Your task to perform on an android device: Open Reddit.com Image 0: 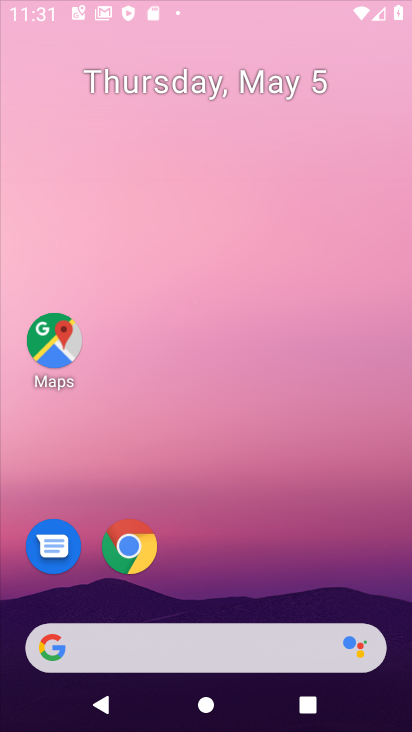
Step 0: click (284, 207)
Your task to perform on an android device: Open Reddit.com Image 1: 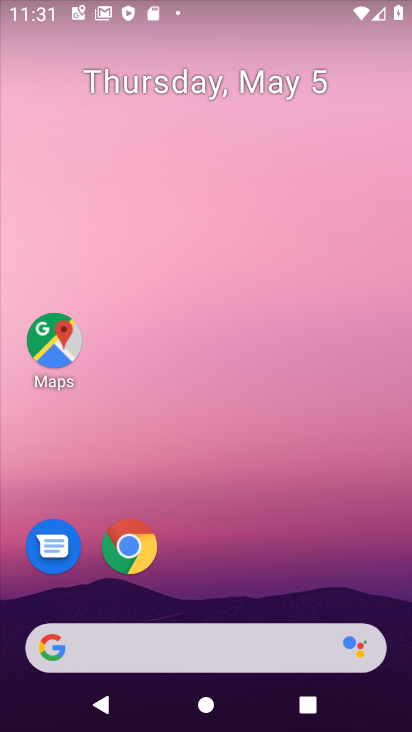
Step 1: click (126, 550)
Your task to perform on an android device: Open Reddit.com Image 2: 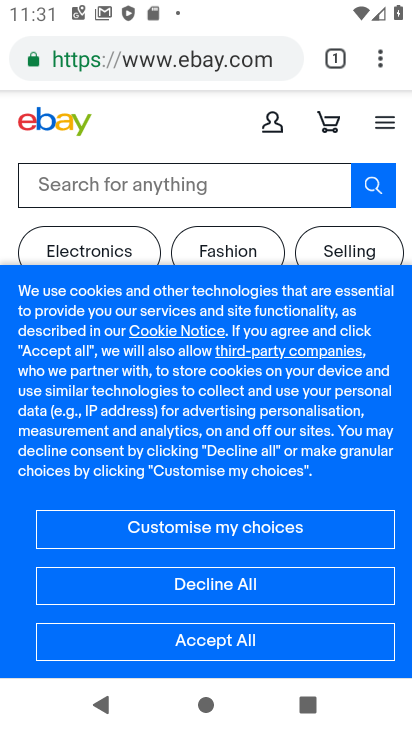
Step 2: click (333, 45)
Your task to perform on an android device: Open Reddit.com Image 3: 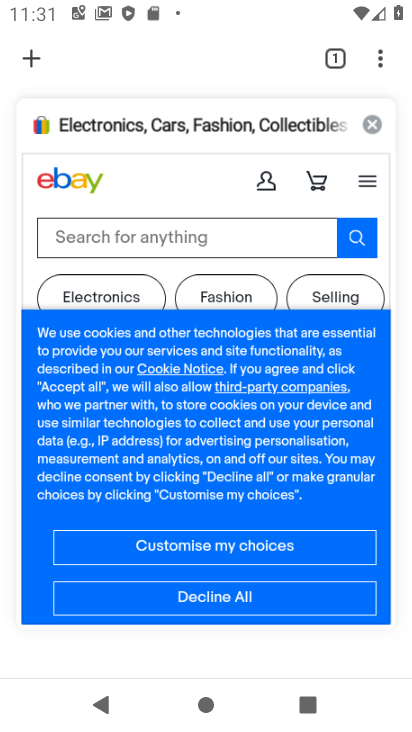
Step 3: click (25, 51)
Your task to perform on an android device: Open Reddit.com Image 4: 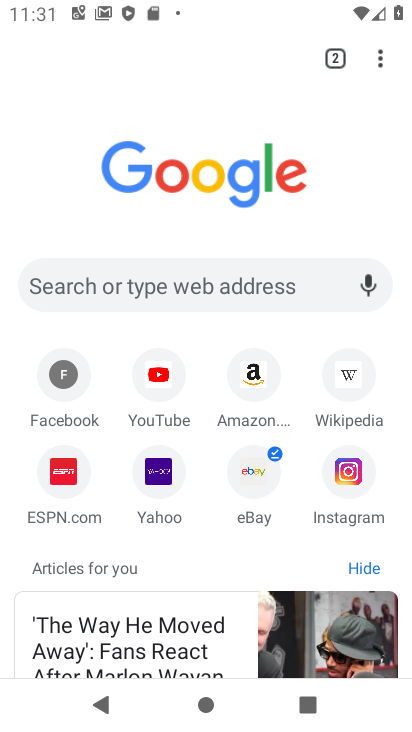
Step 4: click (197, 269)
Your task to perform on an android device: Open Reddit.com Image 5: 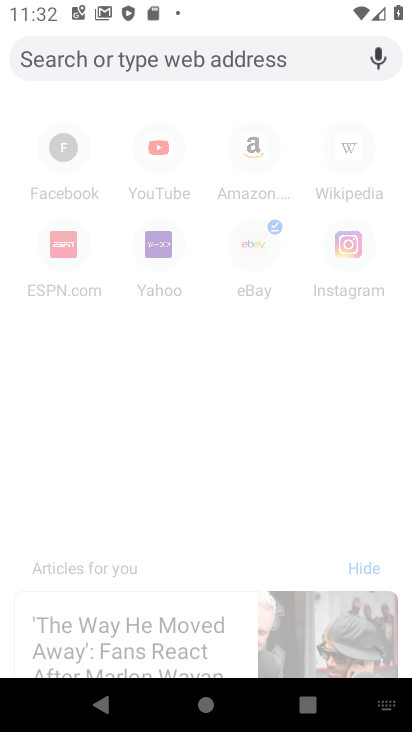
Step 5: type "Reddit.com"
Your task to perform on an android device: Open Reddit.com Image 6: 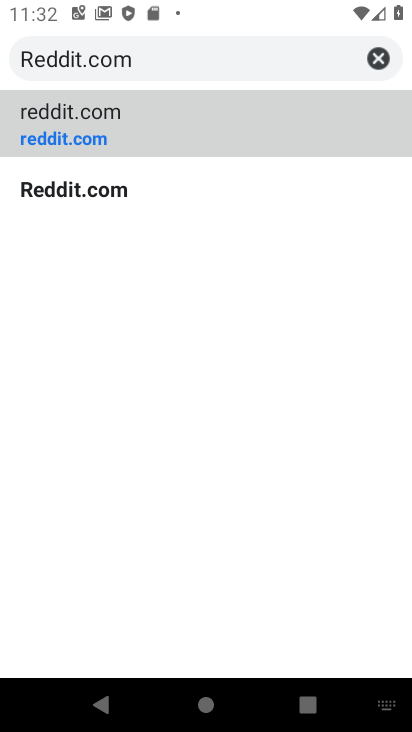
Step 6: click (99, 127)
Your task to perform on an android device: Open Reddit.com Image 7: 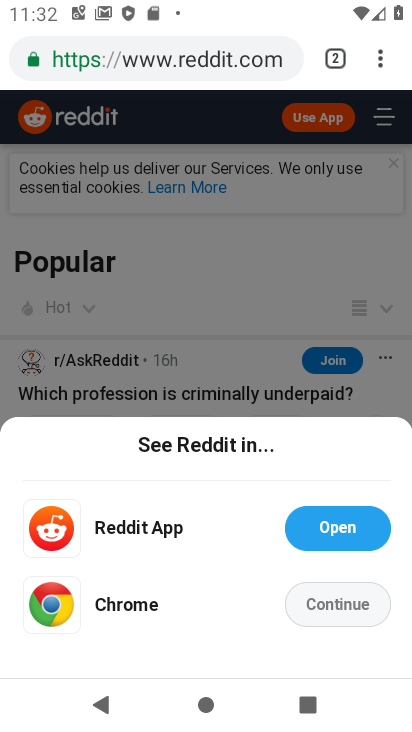
Step 7: click (342, 588)
Your task to perform on an android device: Open Reddit.com Image 8: 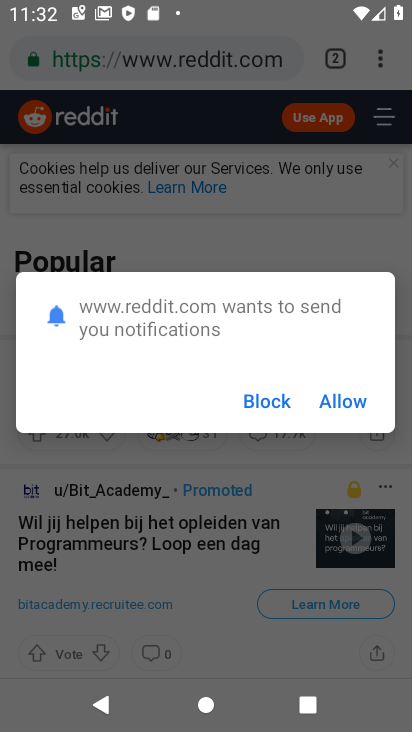
Step 8: click (335, 394)
Your task to perform on an android device: Open Reddit.com Image 9: 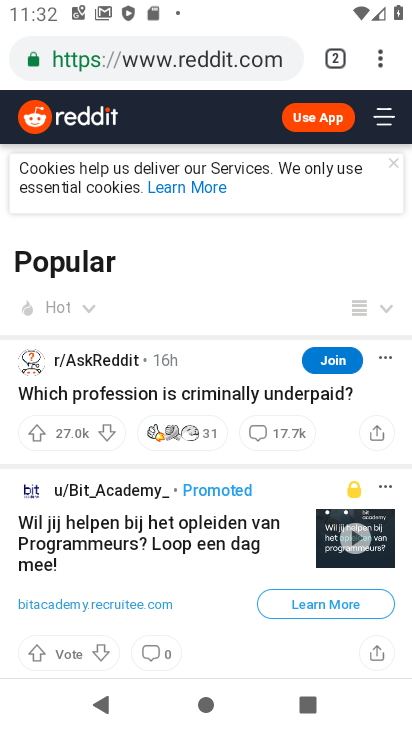
Step 9: task complete